Your task to perform on an android device: Search for hotels in Seattle Image 0: 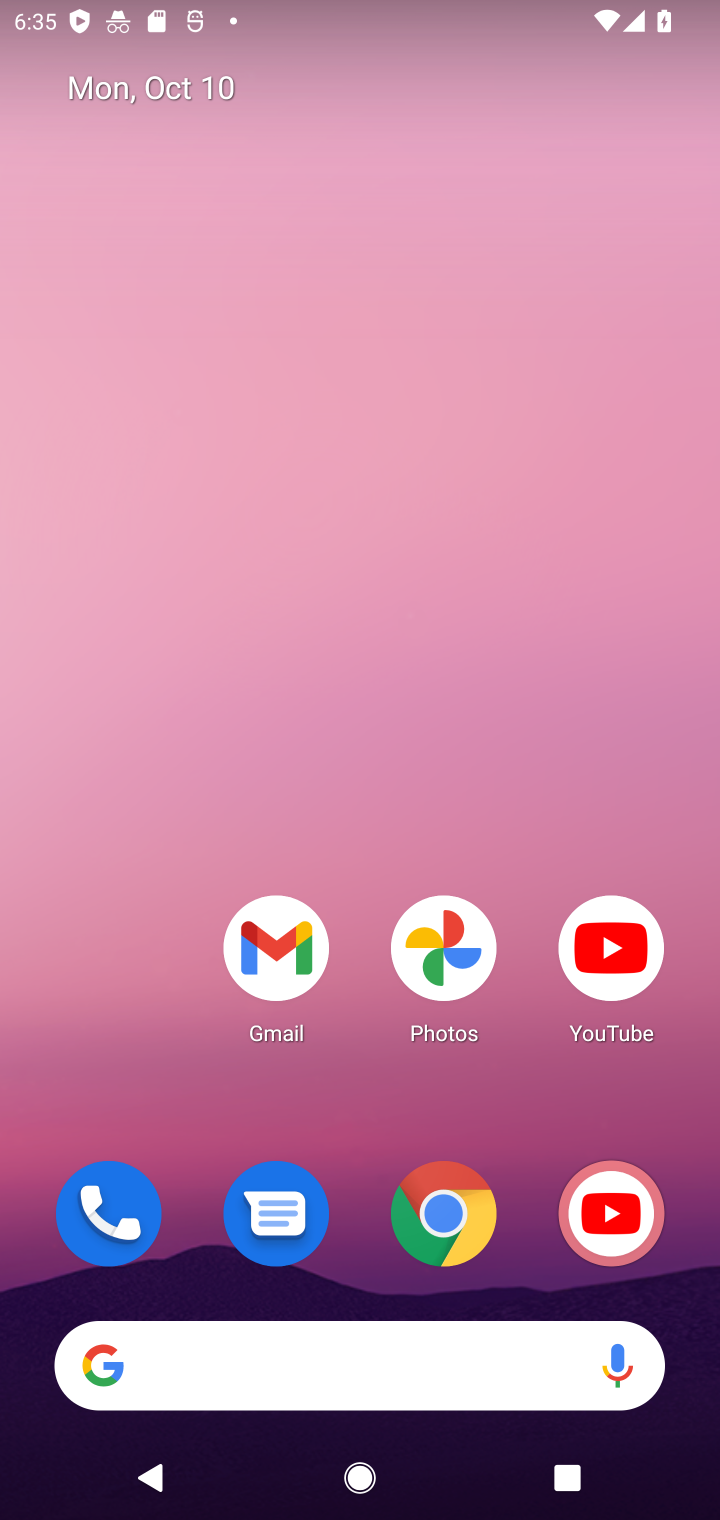
Step 0: click (255, 1373)
Your task to perform on an android device: Search for hotels in Seattle Image 1: 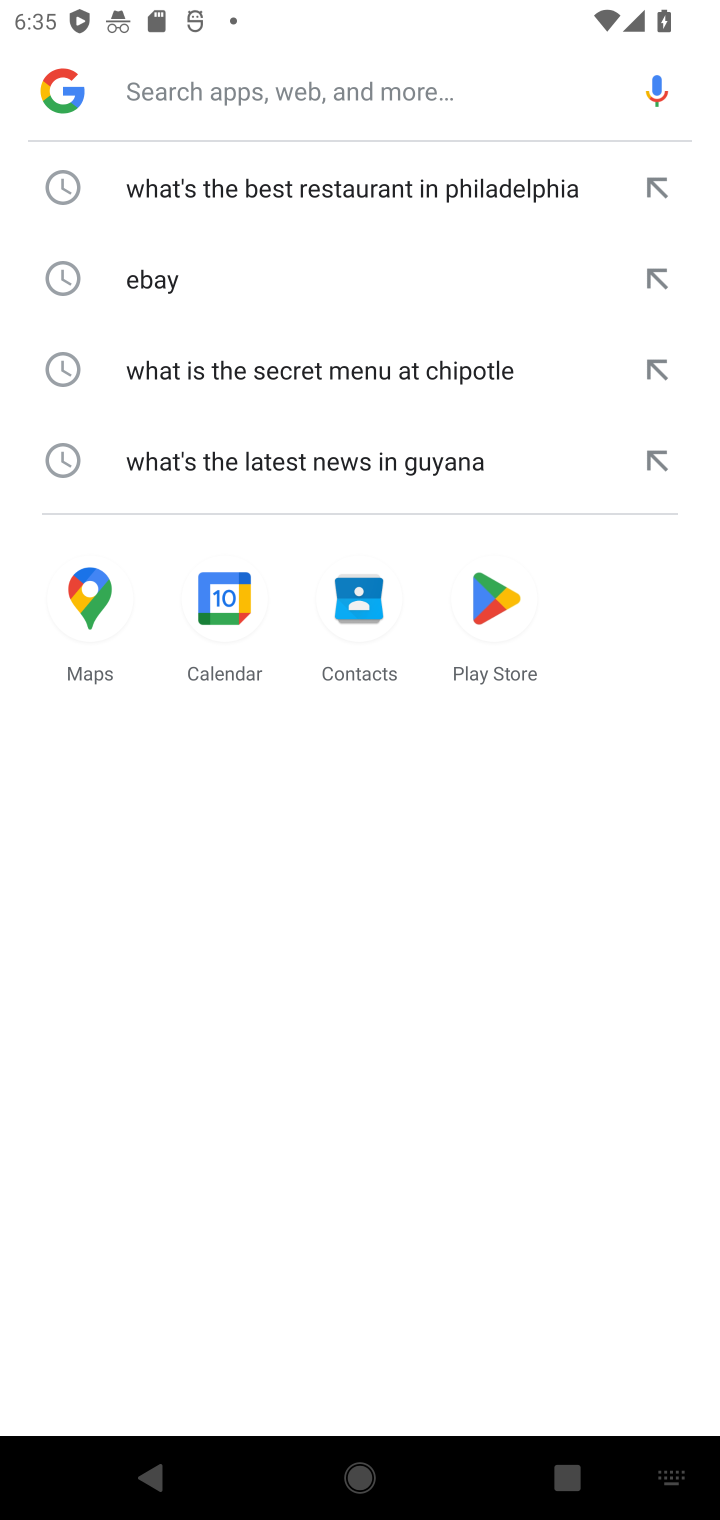
Step 1: click (286, 95)
Your task to perform on an android device: Search for hotels in Seattle Image 2: 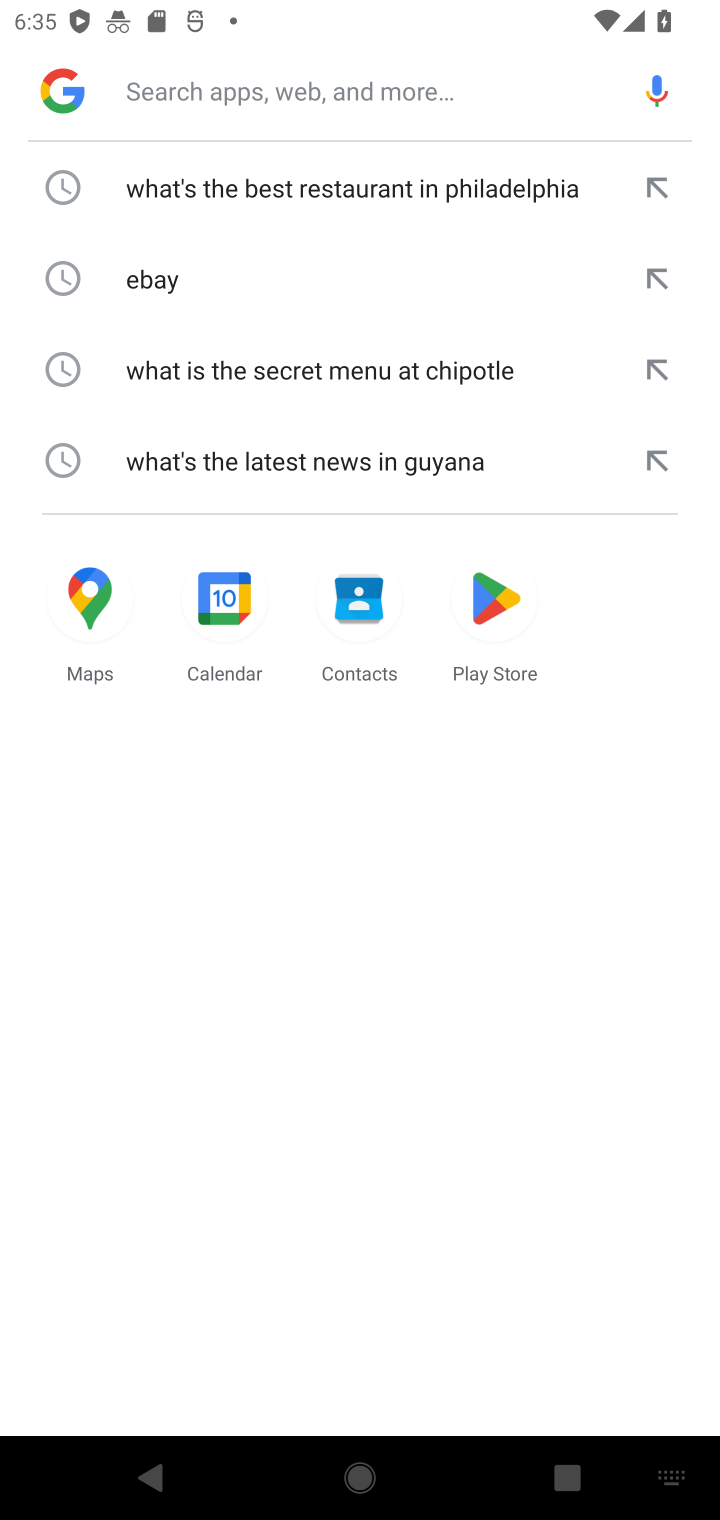
Step 2: type "hotels in Seattle"
Your task to perform on an android device: Search for hotels in Seattle Image 3: 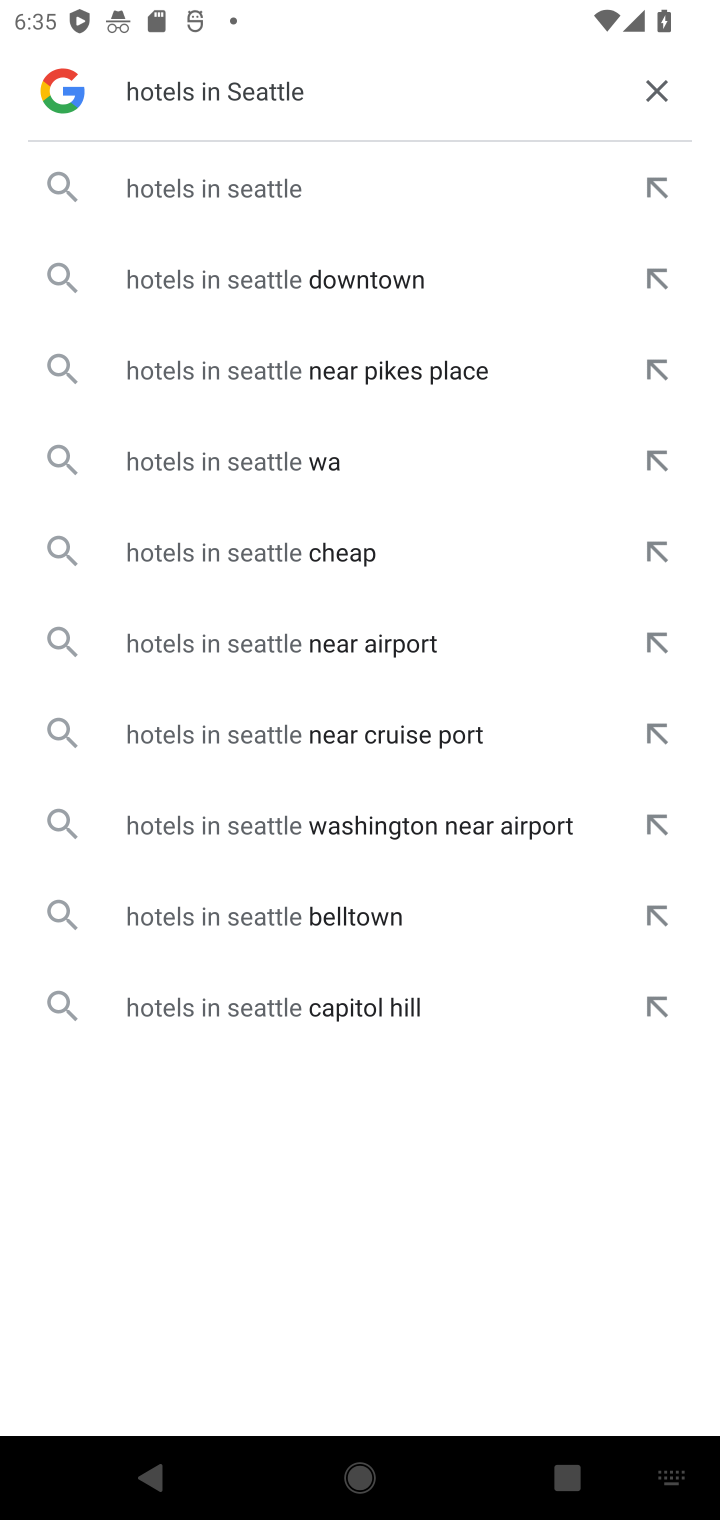
Step 3: click (302, 179)
Your task to perform on an android device: Search for hotels in Seattle Image 4: 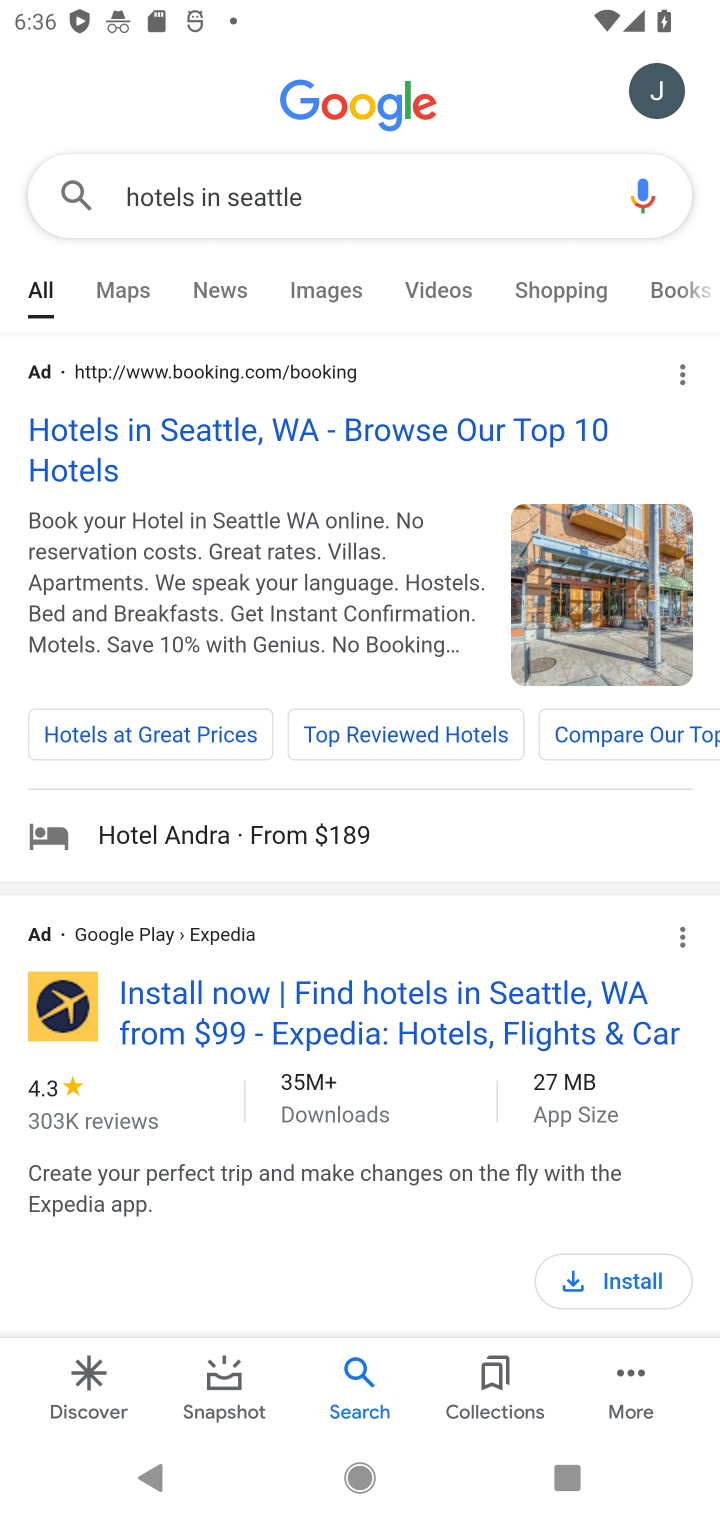
Step 4: task complete